Your task to perform on an android device: Open the Play Movies app and select the watchlist tab. Image 0: 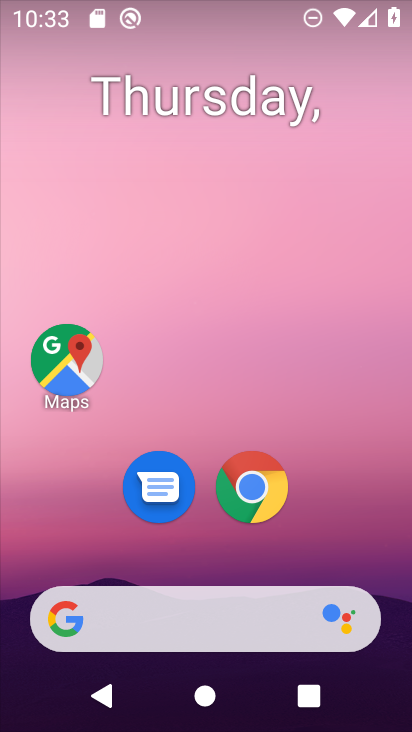
Step 0: drag from (318, 503) to (208, 111)
Your task to perform on an android device: Open the Play Movies app and select the watchlist tab. Image 1: 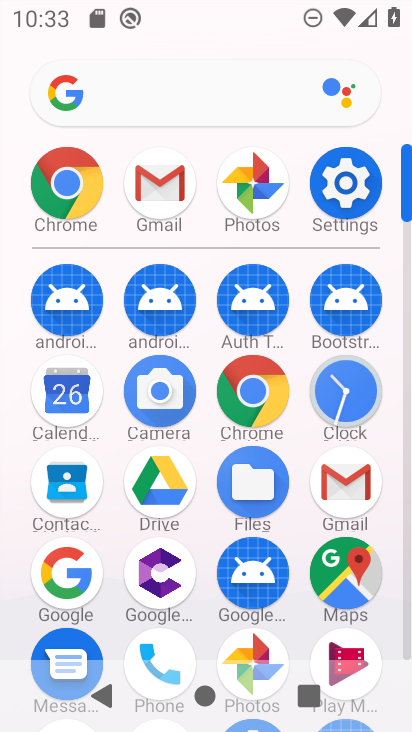
Step 1: click (352, 642)
Your task to perform on an android device: Open the Play Movies app and select the watchlist tab. Image 2: 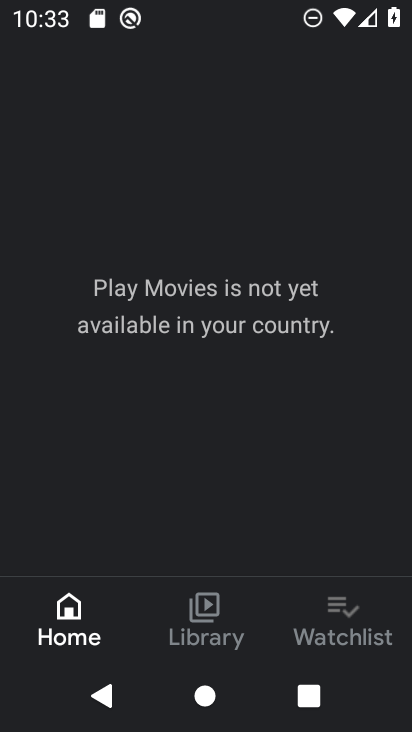
Step 2: click (349, 609)
Your task to perform on an android device: Open the Play Movies app and select the watchlist tab. Image 3: 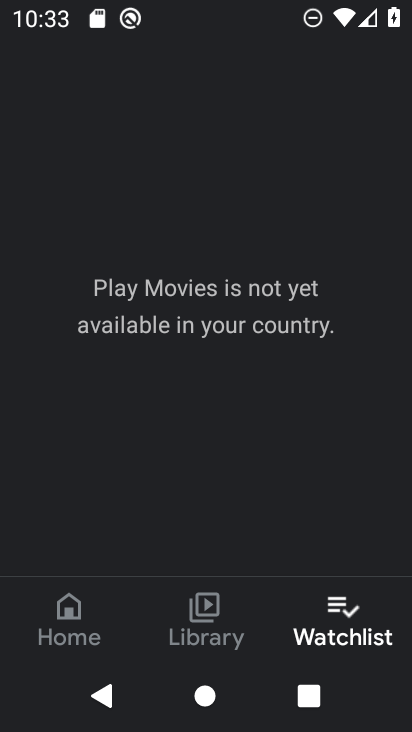
Step 3: task complete